Your task to perform on an android device: toggle show notifications on the lock screen Image 0: 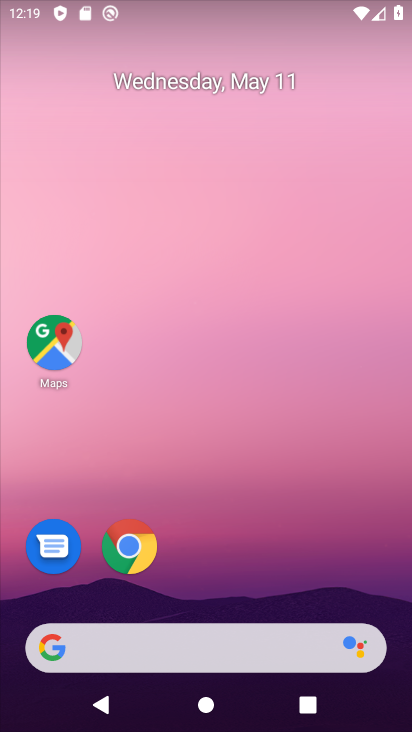
Step 0: drag from (222, 657) to (134, 320)
Your task to perform on an android device: toggle show notifications on the lock screen Image 1: 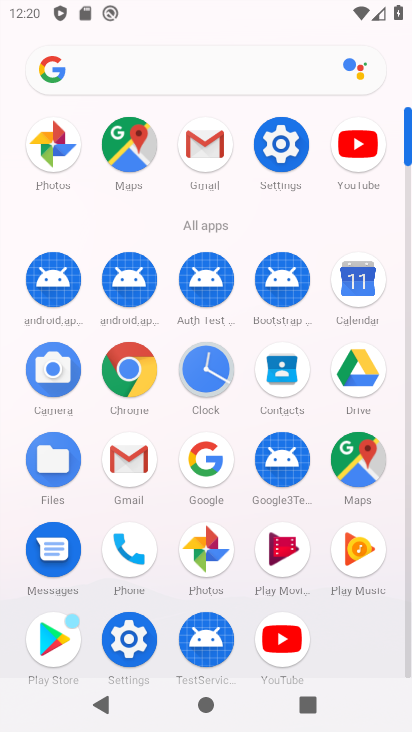
Step 1: click (142, 635)
Your task to perform on an android device: toggle show notifications on the lock screen Image 2: 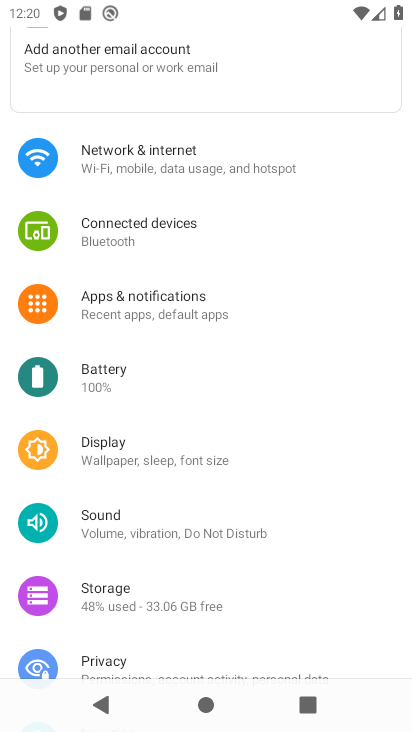
Step 2: drag from (138, 249) to (128, 347)
Your task to perform on an android device: toggle show notifications on the lock screen Image 3: 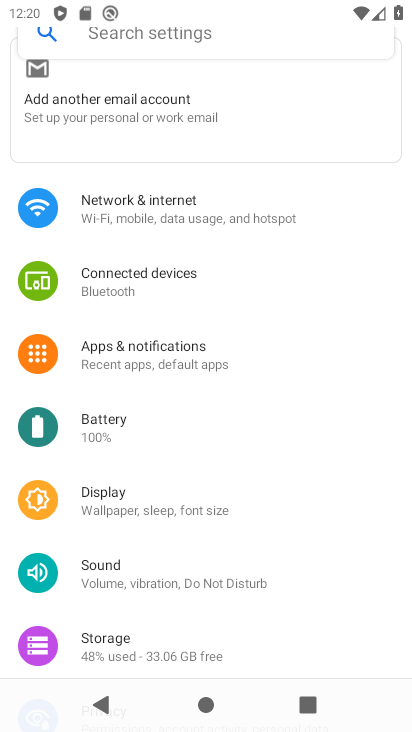
Step 3: click (159, 34)
Your task to perform on an android device: toggle show notifications on the lock screen Image 4: 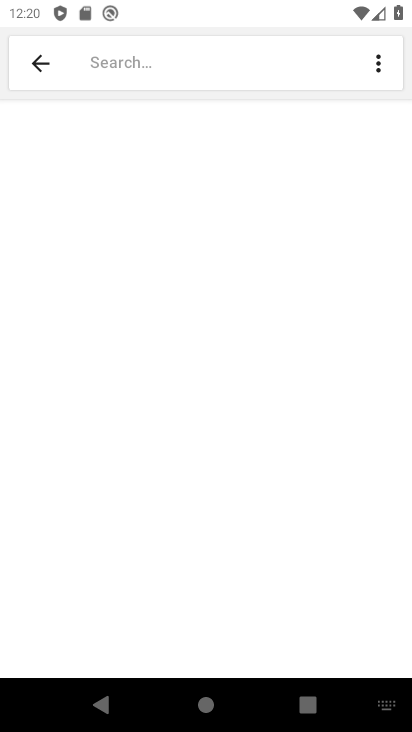
Step 4: click (382, 698)
Your task to perform on an android device: toggle show notifications on the lock screen Image 5: 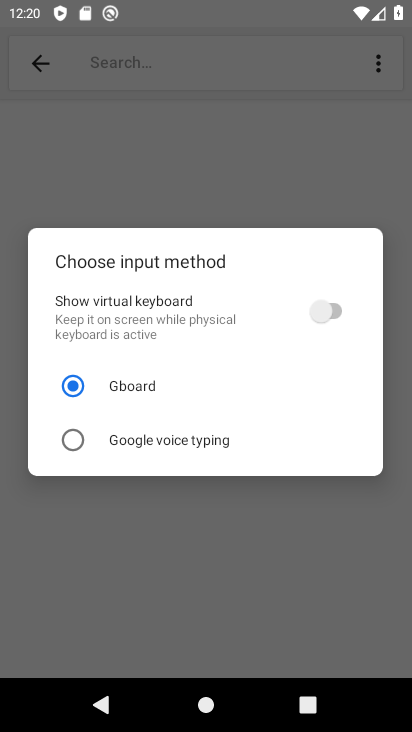
Step 5: click (328, 321)
Your task to perform on an android device: toggle show notifications on the lock screen Image 6: 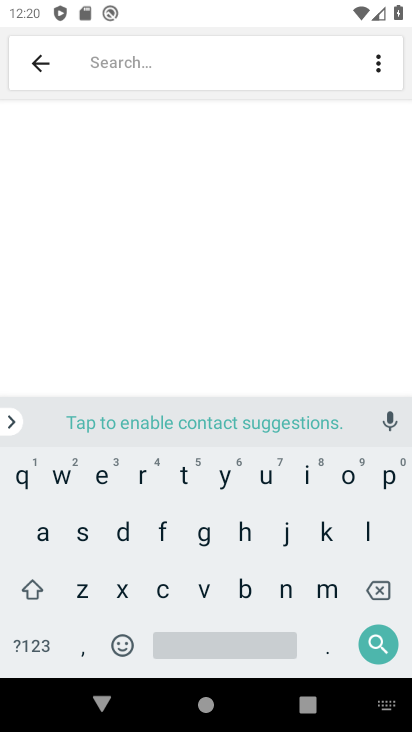
Step 6: click (291, 590)
Your task to perform on an android device: toggle show notifications on the lock screen Image 7: 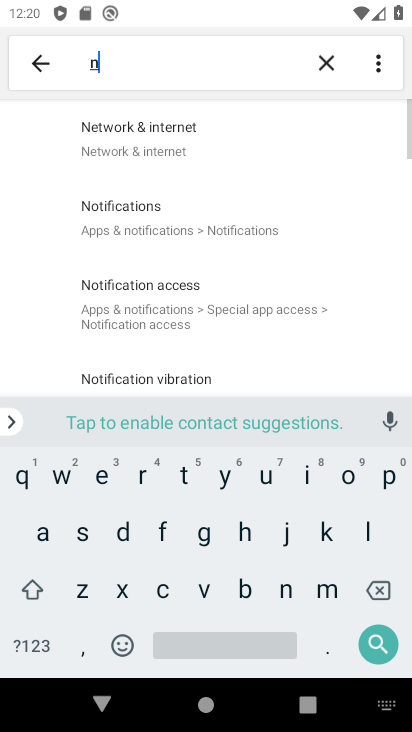
Step 7: click (349, 479)
Your task to perform on an android device: toggle show notifications on the lock screen Image 8: 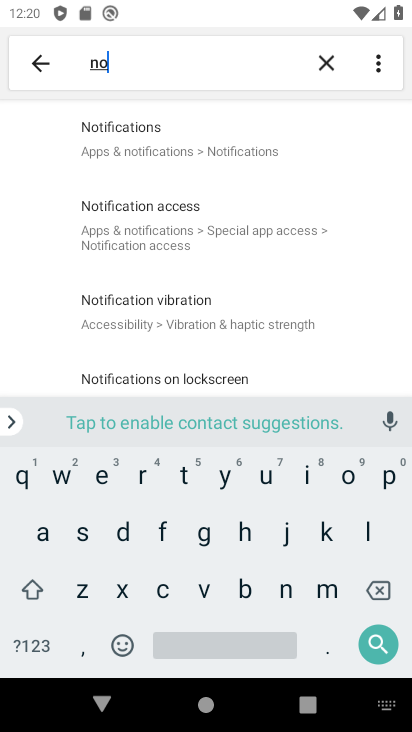
Step 8: click (146, 153)
Your task to perform on an android device: toggle show notifications on the lock screen Image 9: 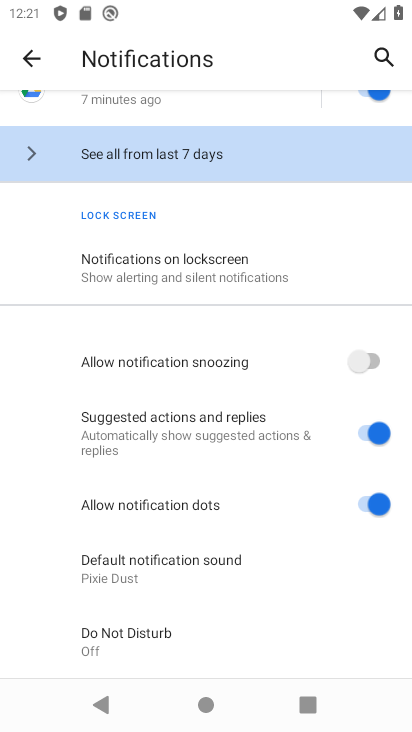
Step 9: click (104, 269)
Your task to perform on an android device: toggle show notifications on the lock screen Image 10: 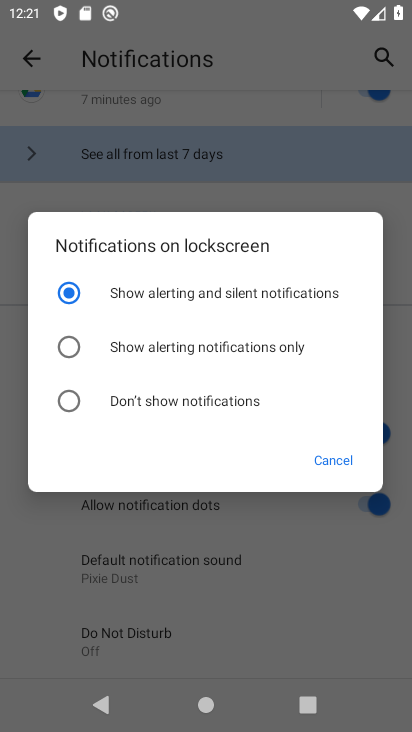
Step 10: task complete